Your task to perform on an android device: Open maps Image 0: 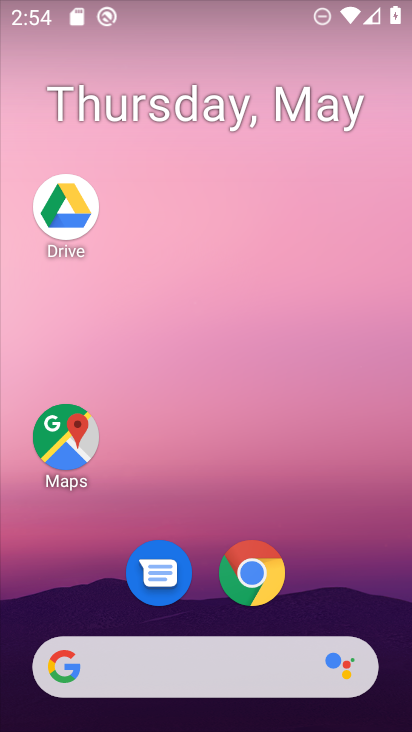
Step 0: click (69, 439)
Your task to perform on an android device: Open maps Image 1: 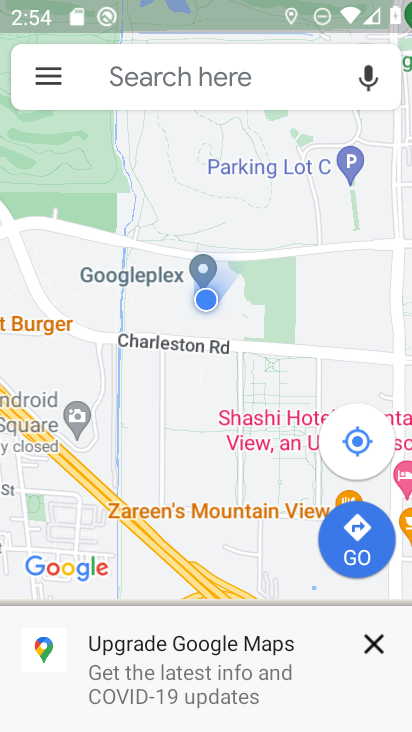
Step 1: task complete